Your task to perform on an android device: Find coffee shops on Maps Image 0: 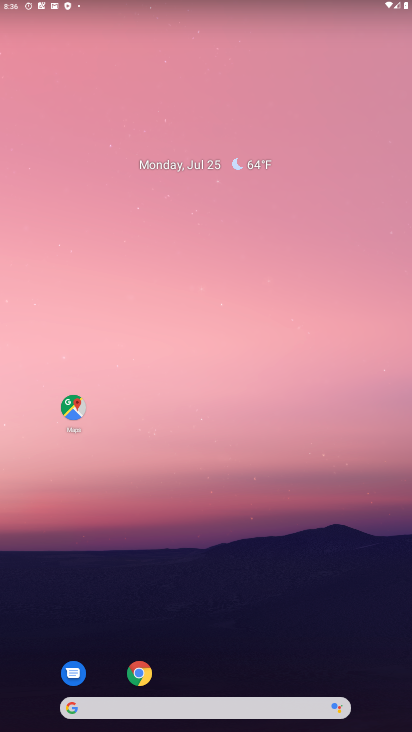
Step 0: click (363, 345)
Your task to perform on an android device: Find coffee shops on Maps Image 1: 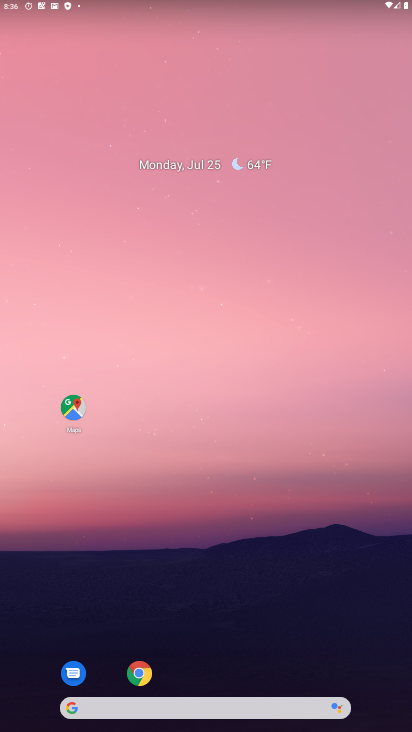
Step 1: click (66, 399)
Your task to perform on an android device: Find coffee shops on Maps Image 2: 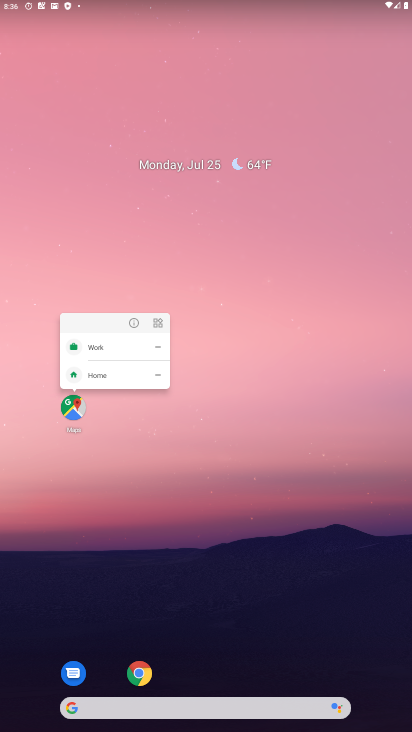
Step 2: click (133, 324)
Your task to perform on an android device: Find coffee shops on Maps Image 3: 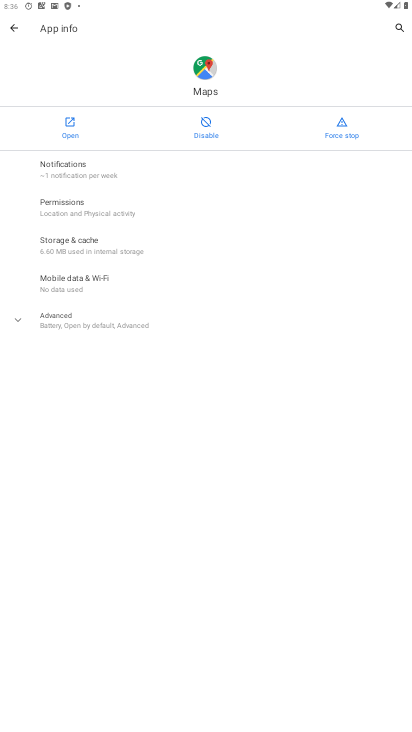
Step 3: click (73, 118)
Your task to perform on an android device: Find coffee shops on Maps Image 4: 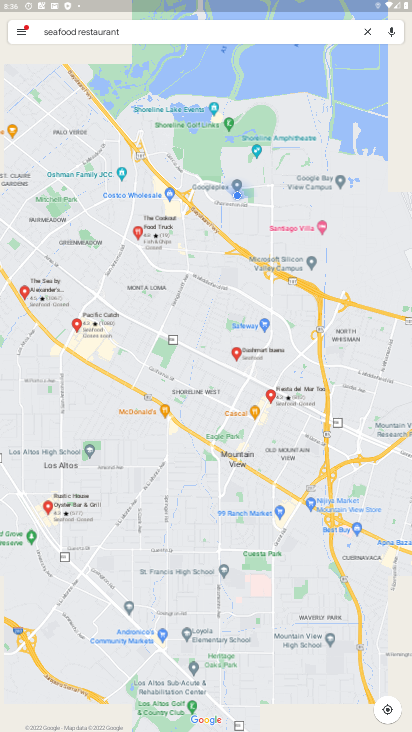
Step 4: click (170, 36)
Your task to perform on an android device: Find coffee shops on Maps Image 5: 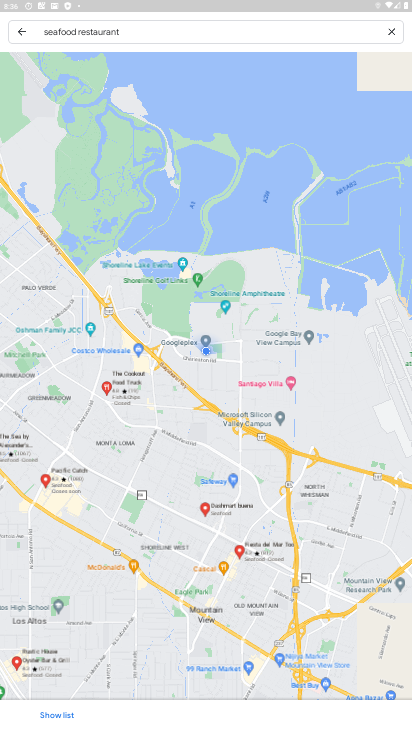
Step 5: click (367, 31)
Your task to perform on an android device: Find coffee shops on Maps Image 6: 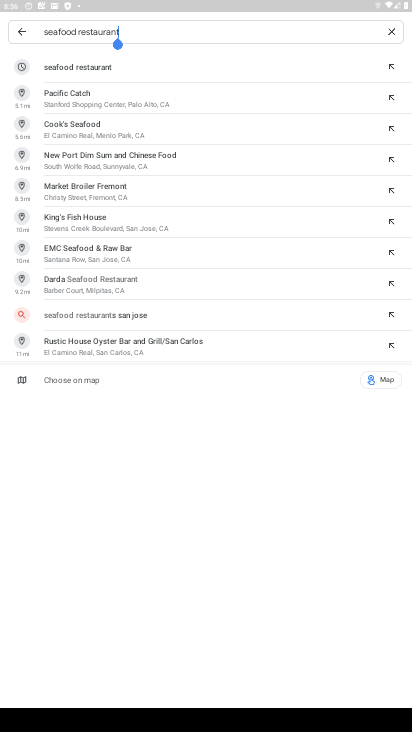
Step 6: click (387, 30)
Your task to perform on an android device: Find coffee shops on Maps Image 7: 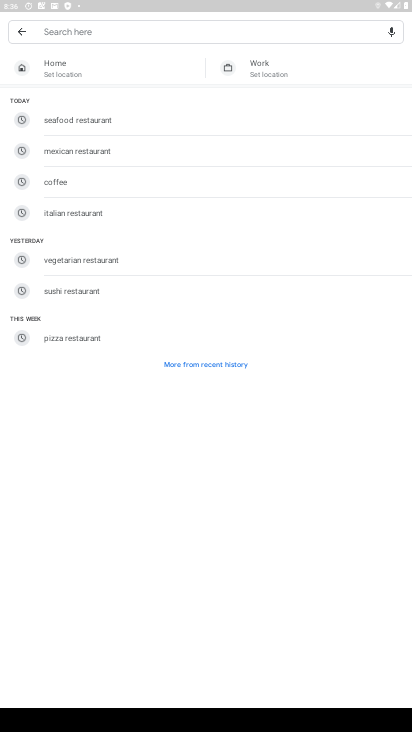
Step 7: click (63, 184)
Your task to perform on an android device: Find coffee shops on Maps Image 8: 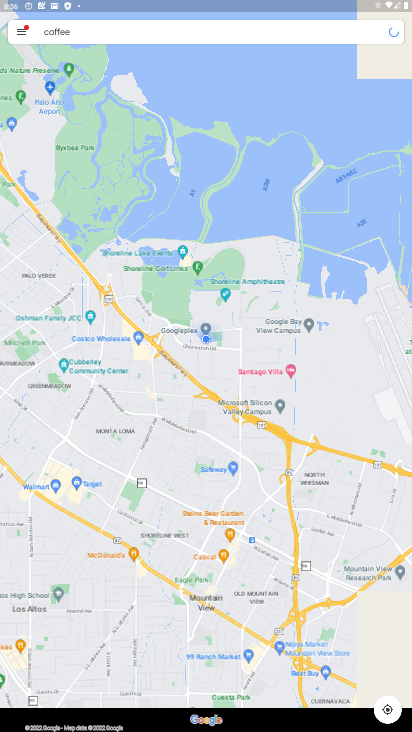
Step 8: task complete